Your task to perform on an android device: Play the new Selena Gomez video on YouTube Image 0: 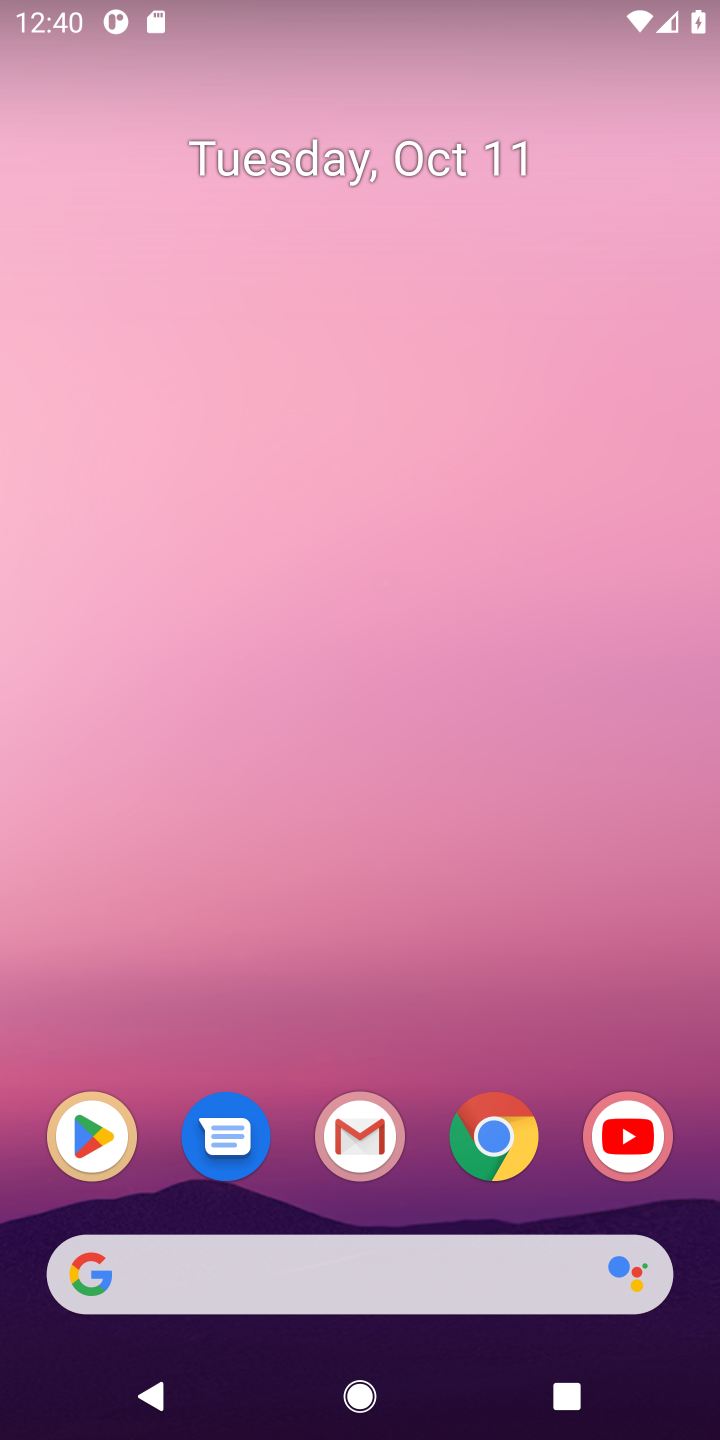
Step 0: drag from (604, 998) to (615, 48)
Your task to perform on an android device: Play the new Selena Gomez video on YouTube Image 1: 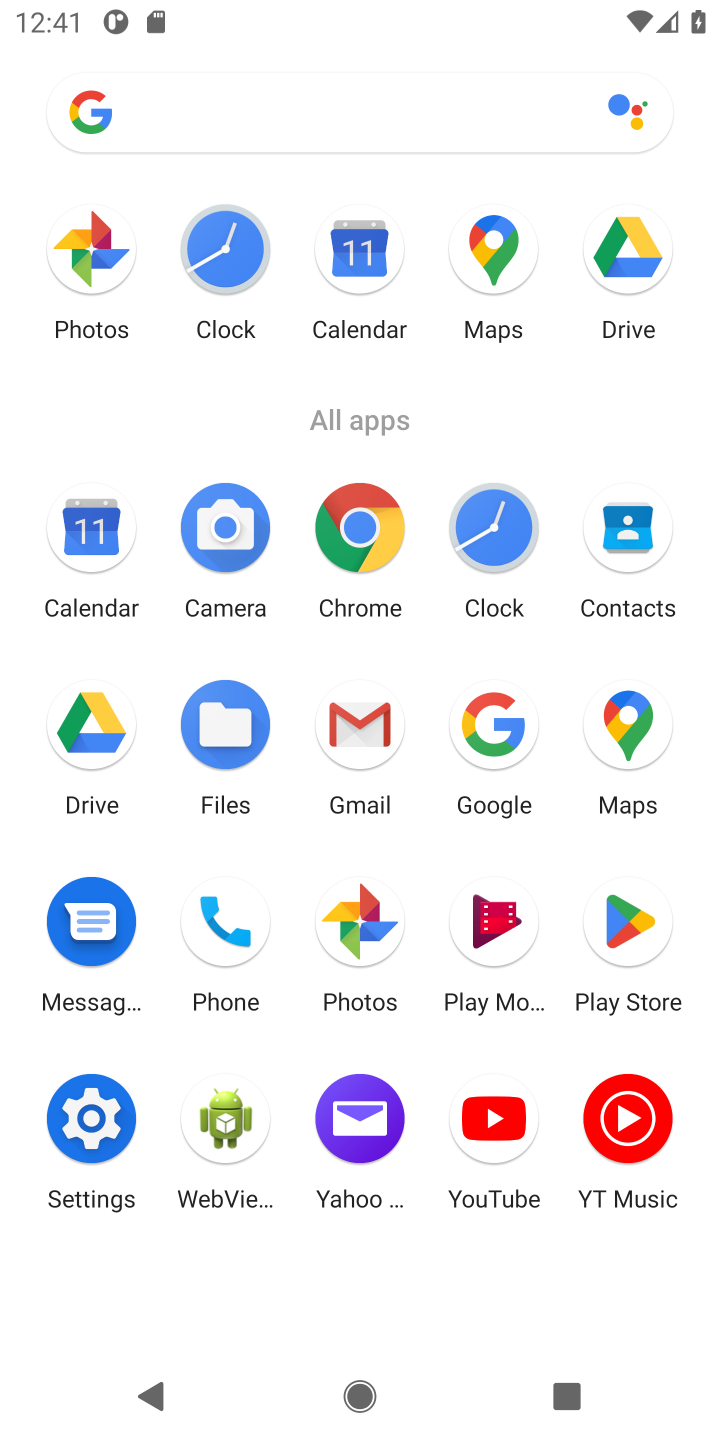
Step 1: click (484, 1117)
Your task to perform on an android device: Play the new Selena Gomez video on YouTube Image 2: 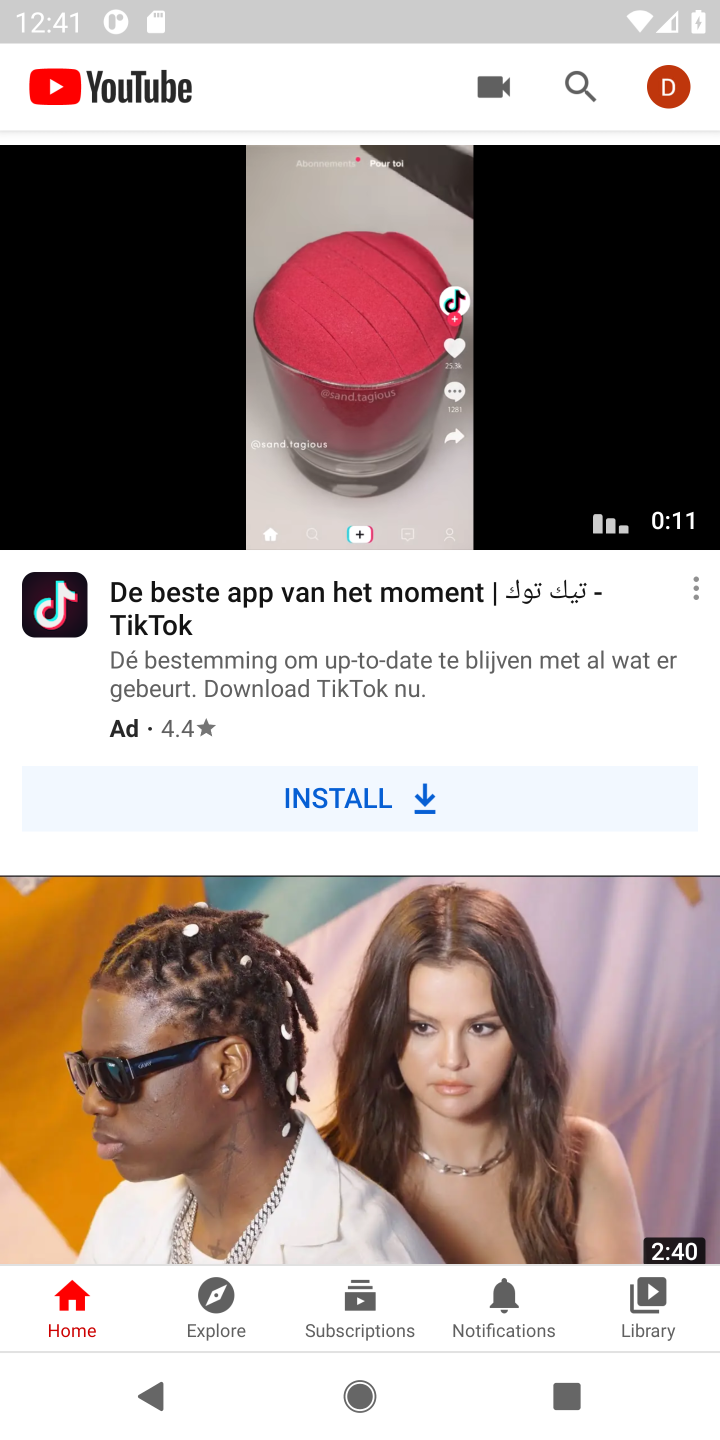
Step 2: click (573, 87)
Your task to perform on an android device: Play the new Selena Gomez video on YouTube Image 3: 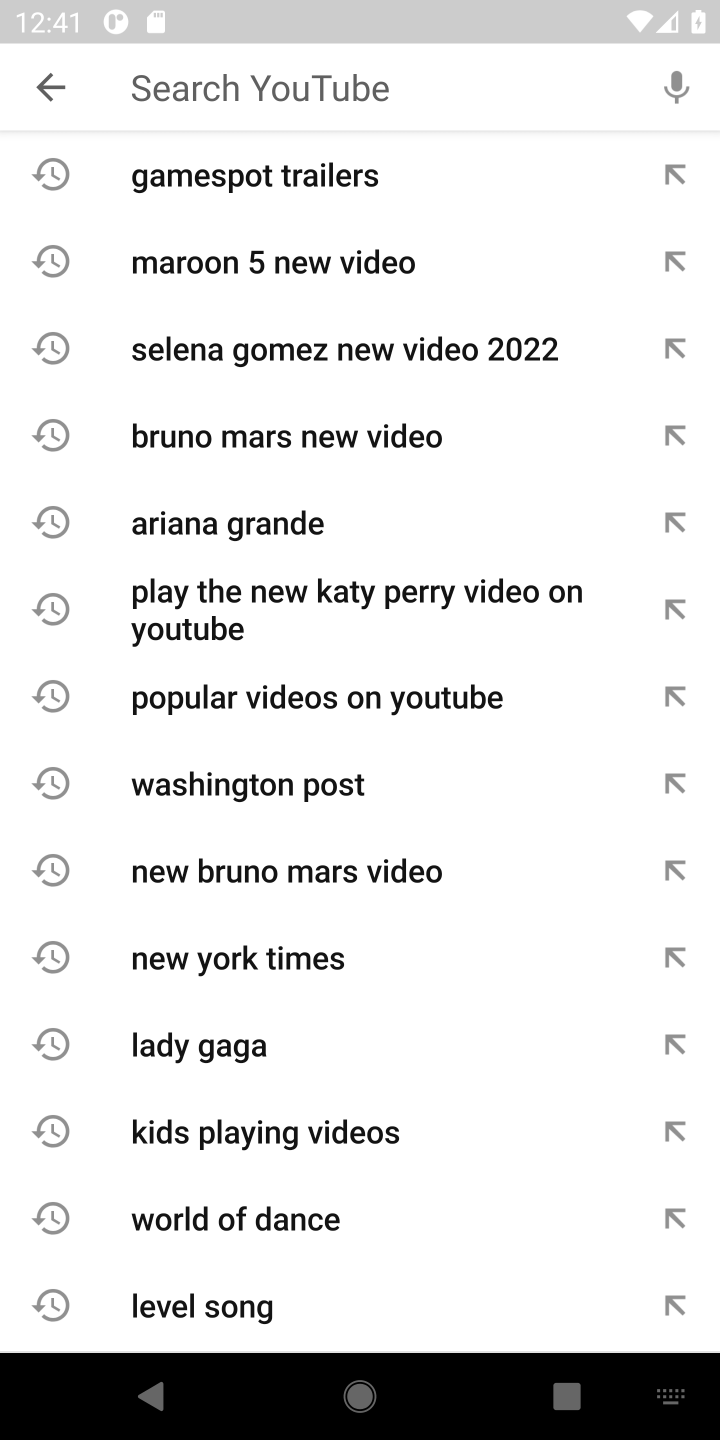
Step 3: type "Selena Gomez video"
Your task to perform on an android device: Play the new Selena Gomez video on YouTube Image 4: 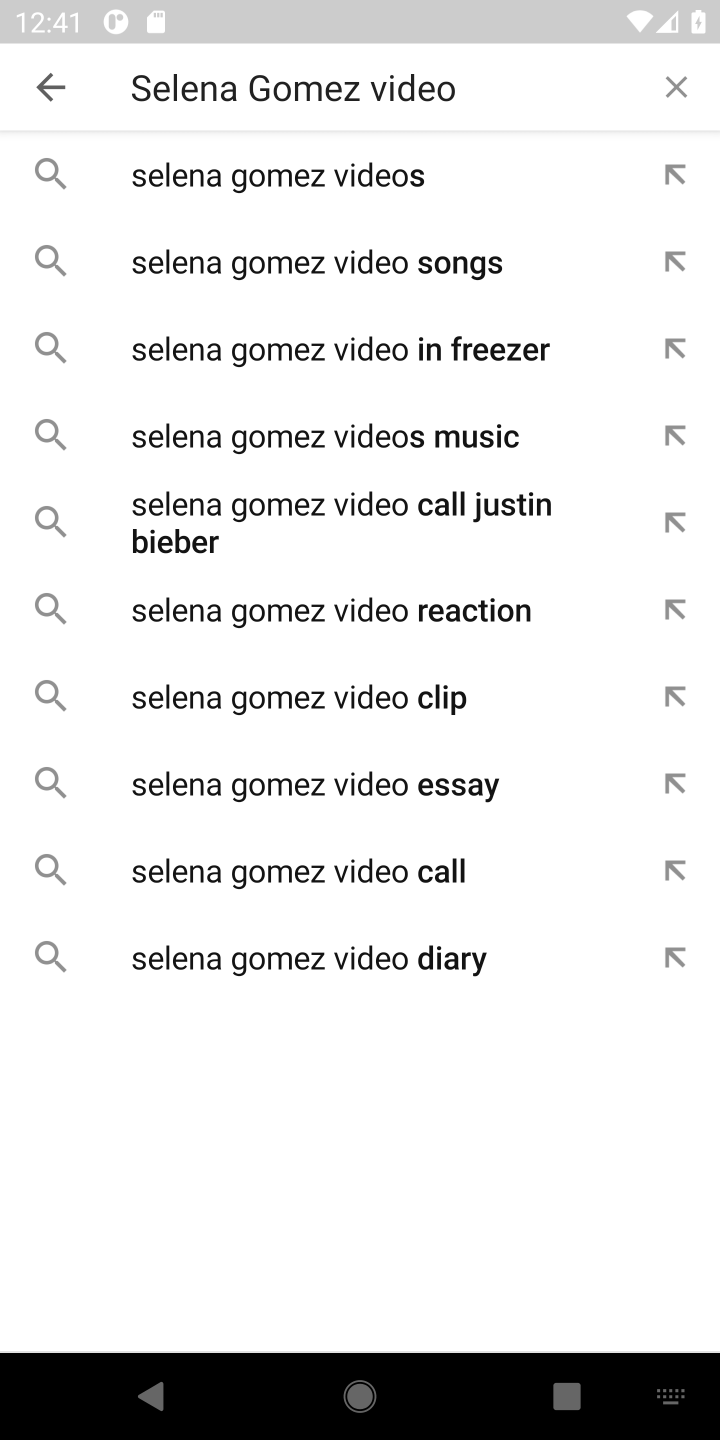
Step 4: press enter
Your task to perform on an android device: Play the new Selena Gomez video on YouTube Image 5: 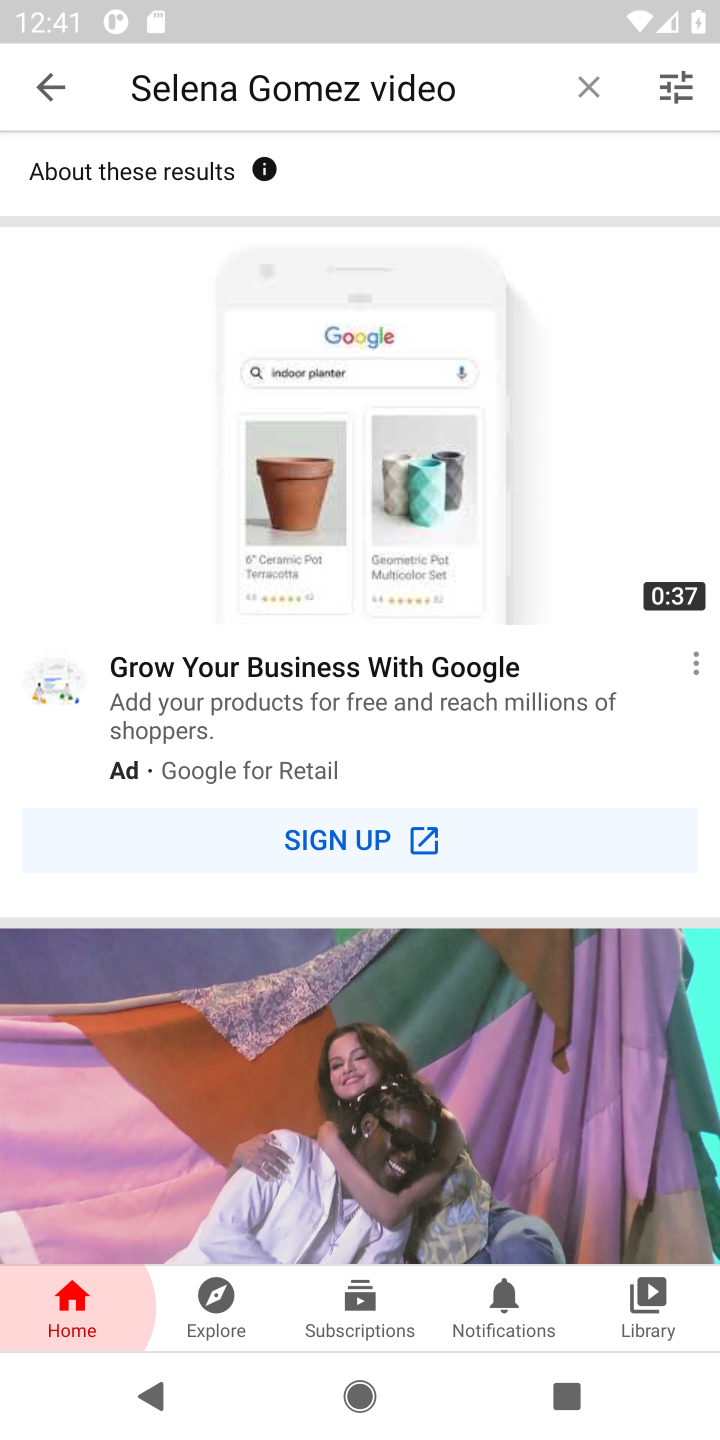
Step 5: drag from (475, 1023) to (522, 560)
Your task to perform on an android device: Play the new Selena Gomez video on YouTube Image 6: 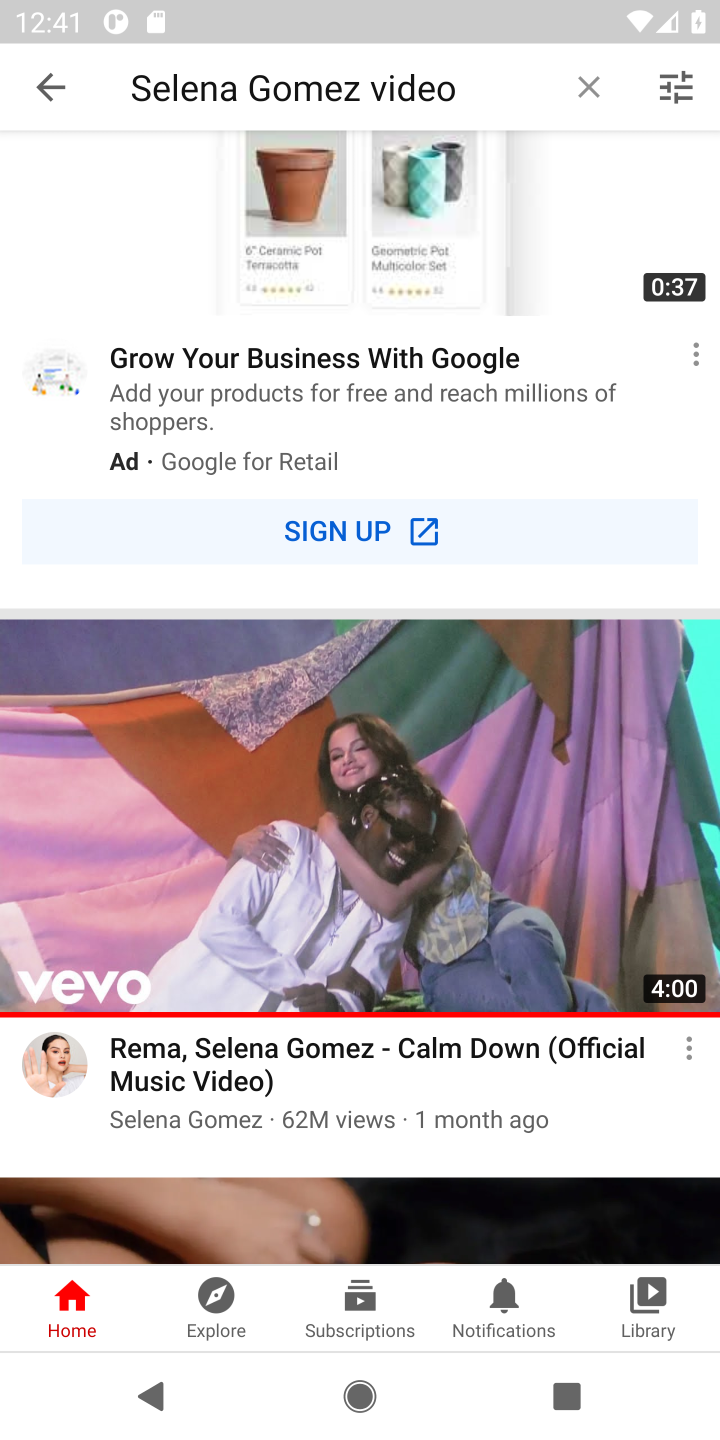
Step 6: click (380, 877)
Your task to perform on an android device: Play the new Selena Gomez video on YouTube Image 7: 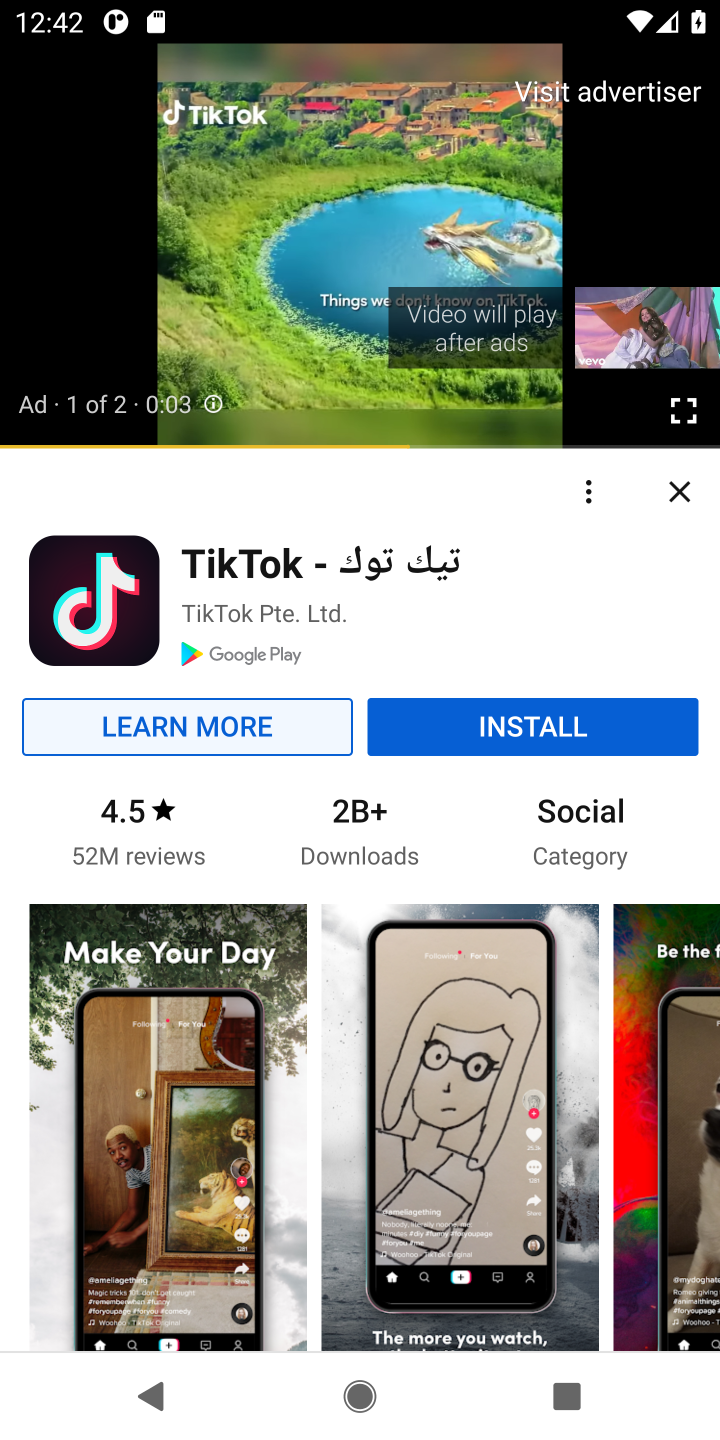
Step 7: click (687, 487)
Your task to perform on an android device: Play the new Selena Gomez video on YouTube Image 8: 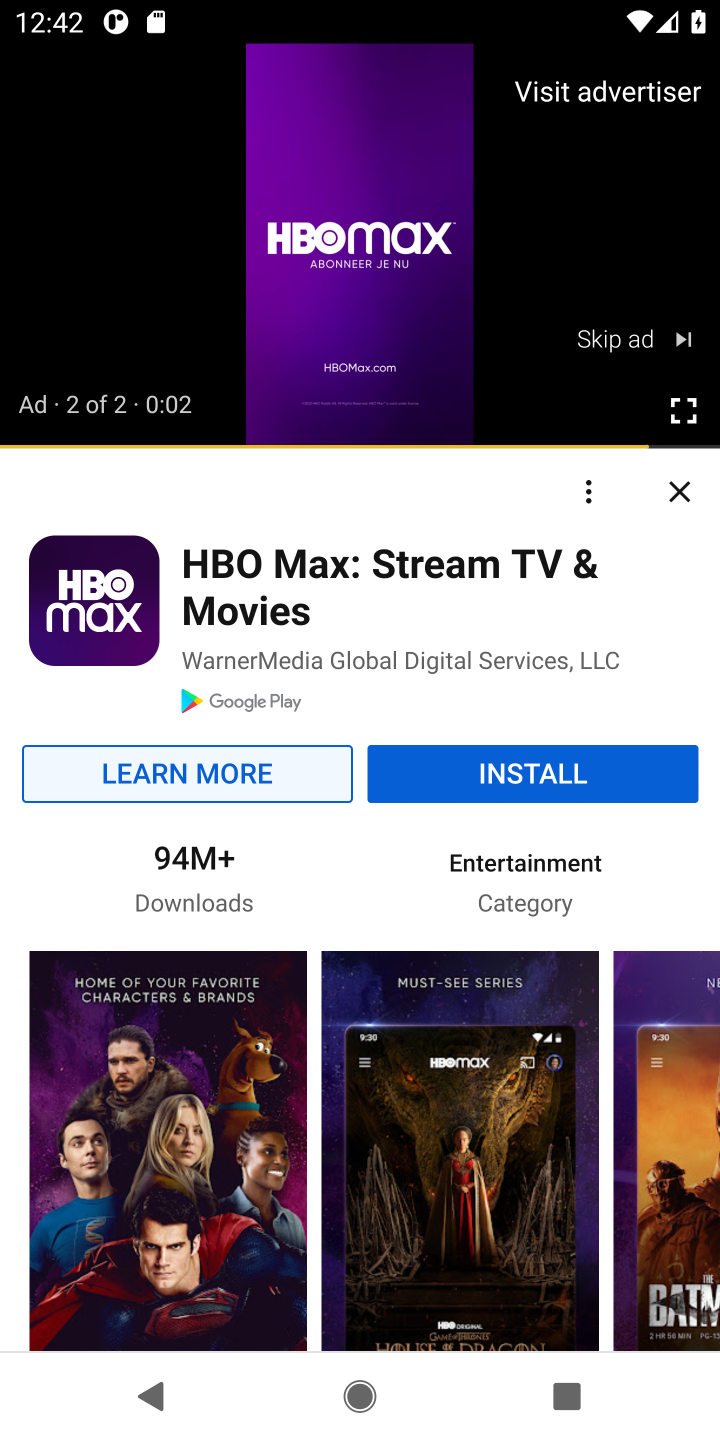
Step 8: click (639, 342)
Your task to perform on an android device: Play the new Selena Gomez video on YouTube Image 9: 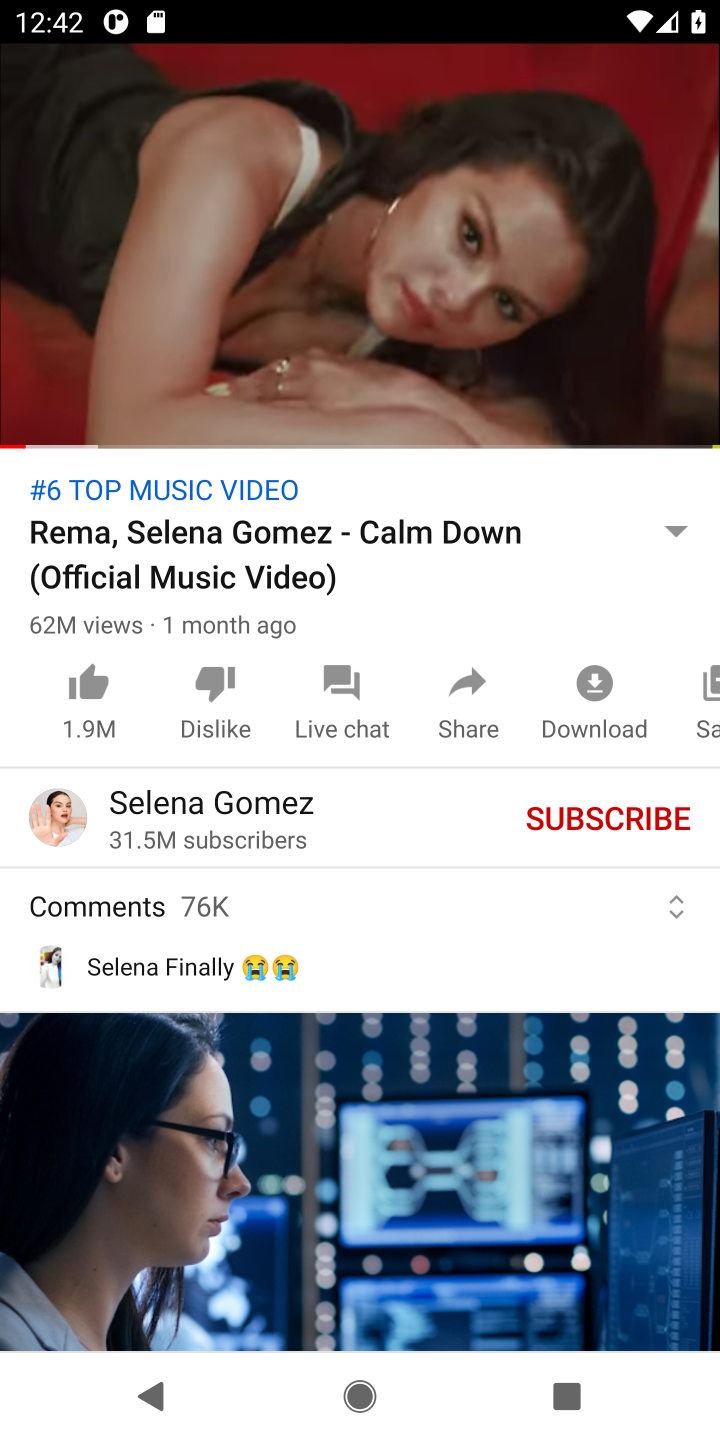
Step 9: task complete